Your task to perform on an android device: Find coffee shops on Maps Image 0: 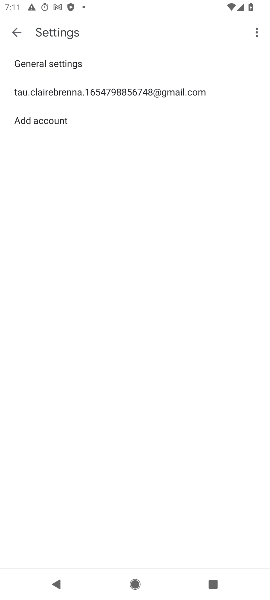
Step 0: drag from (81, 388) to (100, 242)
Your task to perform on an android device: Find coffee shops on Maps Image 1: 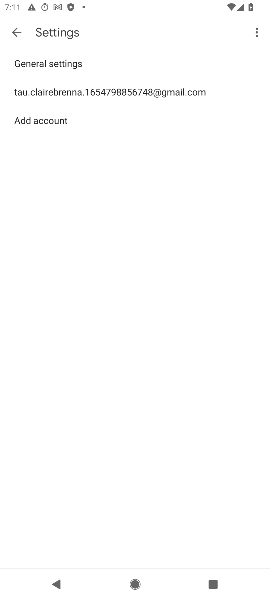
Step 1: press home button
Your task to perform on an android device: Find coffee shops on Maps Image 2: 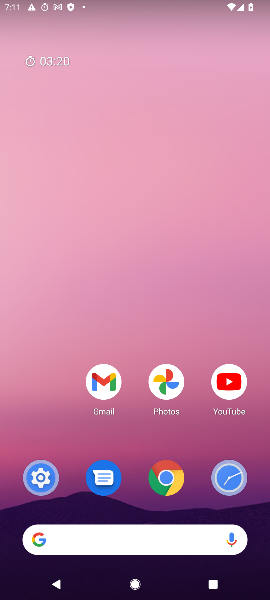
Step 2: drag from (127, 473) to (133, 200)
Your task to perform on an android device: Find coffee shops on Maps Image 3: 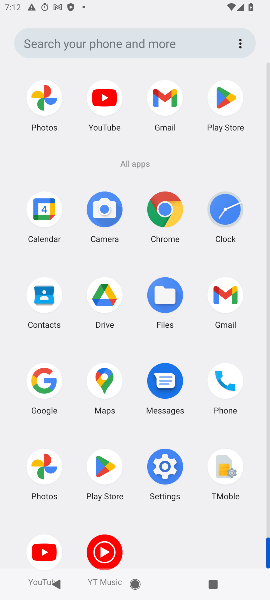
Step 3: drag from (164, 516) to (126, 88)
Your task to perform on an android device: Find coffee shops on Maps Image 4: 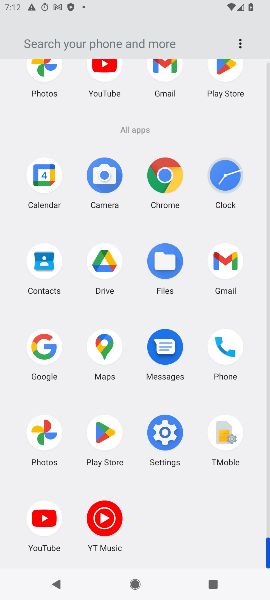
Step 4: click (98, 150)
Your task to perform on an android device: Find coffee shops on Maps Image 5: 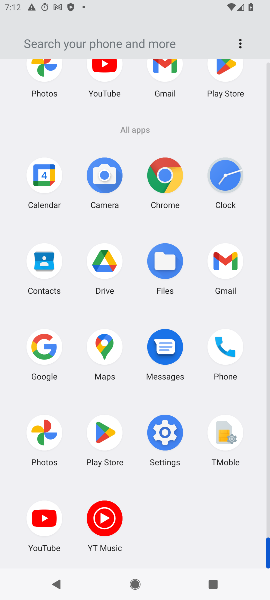
Step 5: drag from (137, 501) to (151, 261)
Your task to perform on an android device: Find coffee shops on Maps Image 6: 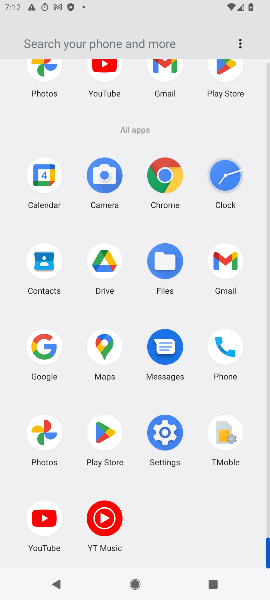
Step 6: drag from (129, 470) to (146, 150)
Your task to perform on an android device: Find coffee shops on Maps Image 7: 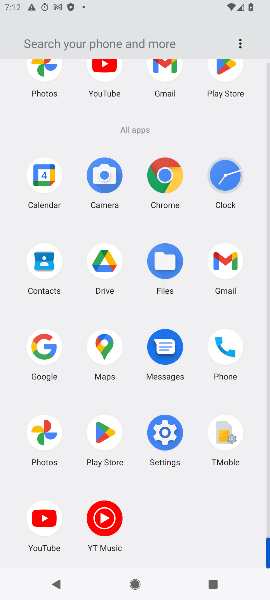
Step 7: drag from (126, 485) to (114, 124)
Your task to perform on an android device: Find coffee shops on Maps Image 8: 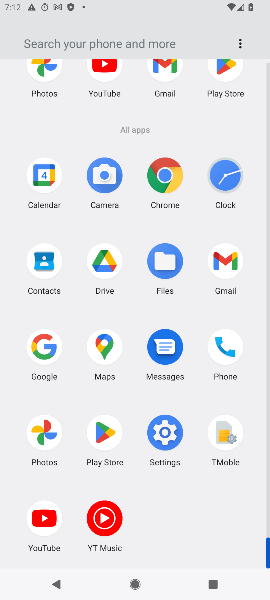
Step 8: click (111, 346)
Your task to perform on an android device: Find coffee shops on Maps Image 9: 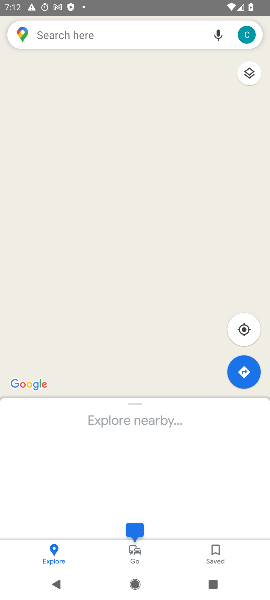
Step 9: drag from (152, 506) to (180, 280)
Your task to perform on an android device: Find coffee shops on Maps Image 10: 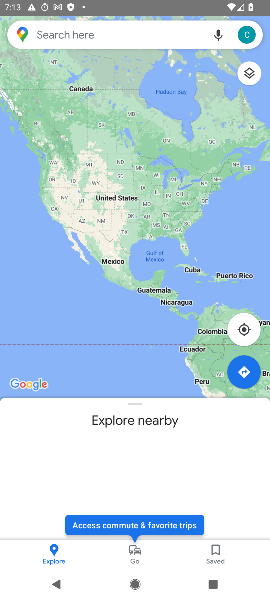
Step 10: drag from (144, 491) to (163, 311)
Your task to perform on an android device: Find coffee shops on Maps Image 11: 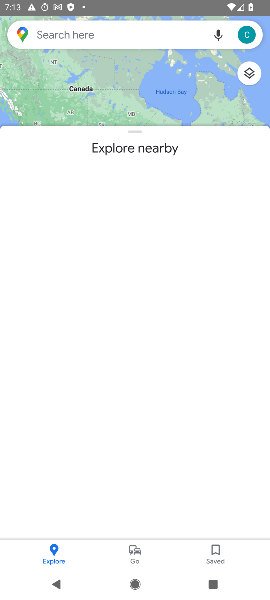
Step 11: click (89, 41)
Your task to perform on an android device: Find coffee shops on Maps Image 12: 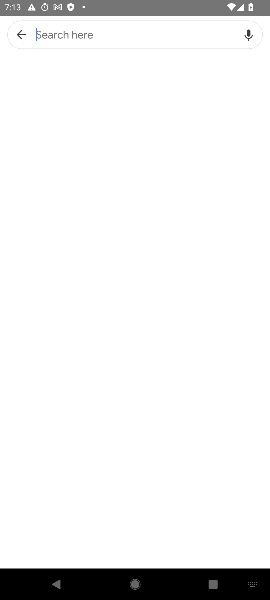
Step 12: drag from (173, 348) to (158, 142)
Your task to perform on an android device: Find coffee shops on Maps Image 13: 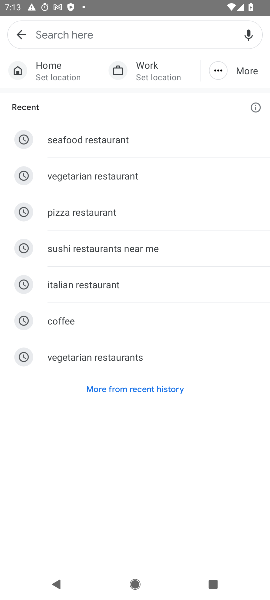
Step 13: click (58, 330)
Your task to perform on an android device: Find coffee shops on Maps Image 14: 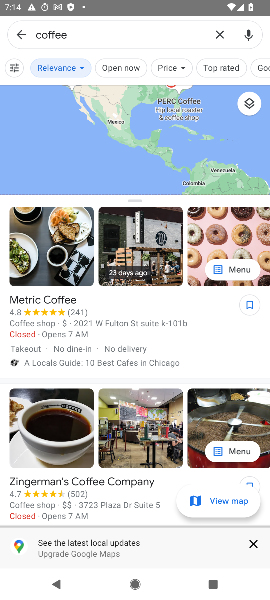
Step 14: click (202, 114)
Your task to perform on an android device: Find coffee shops on Maps Image 15: 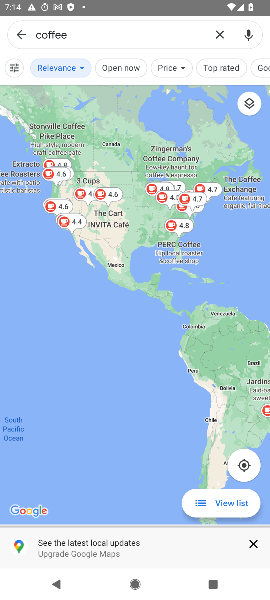
Step 15: task complete